Your task to perform on an android device: check android version Image 0: 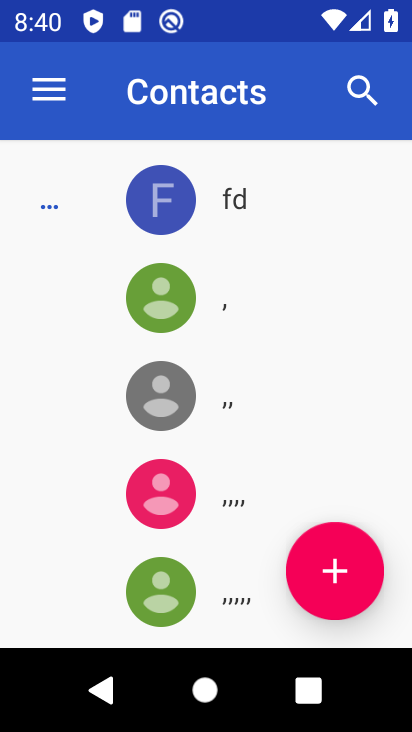
Step 0: press home button
Your task to perform on an android device: check android version Image 1: 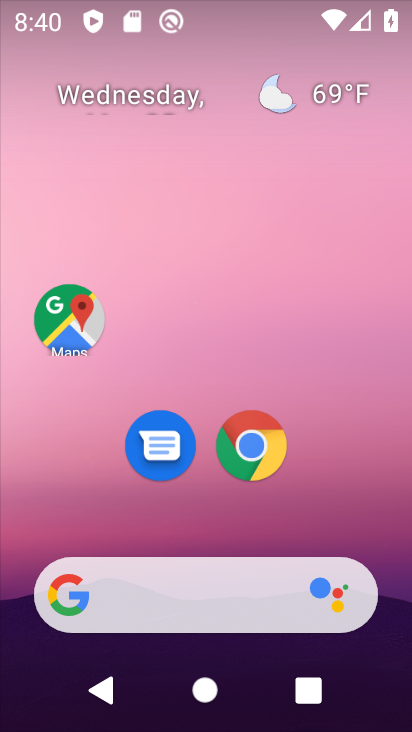
Step 1: drag from (287, 536) to (275, 82)
Your task to perform on an android device: check android version Image 2: 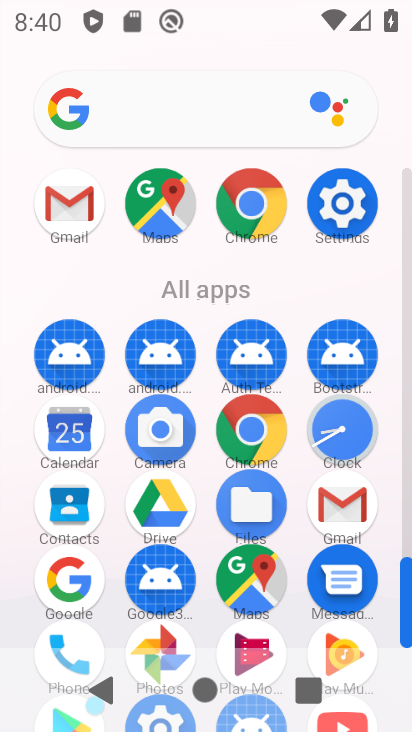
Step 2: click (341, 203)
Your task to perform on an android device: check android version Image 3: 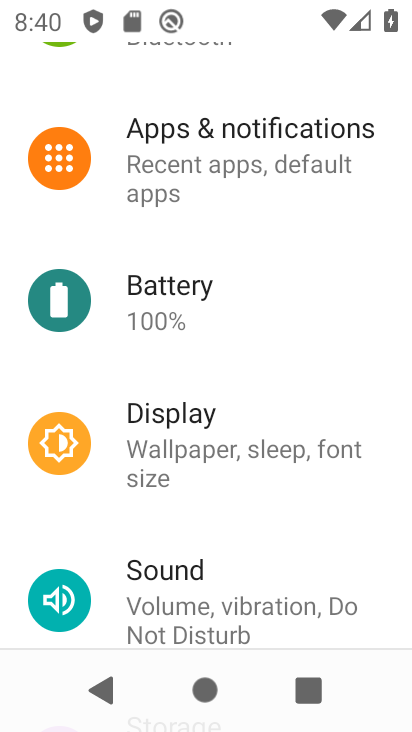
Step 3: drag from (336, 621) to (271, 141)
Your task to perform on an android device: check android version Image 4: 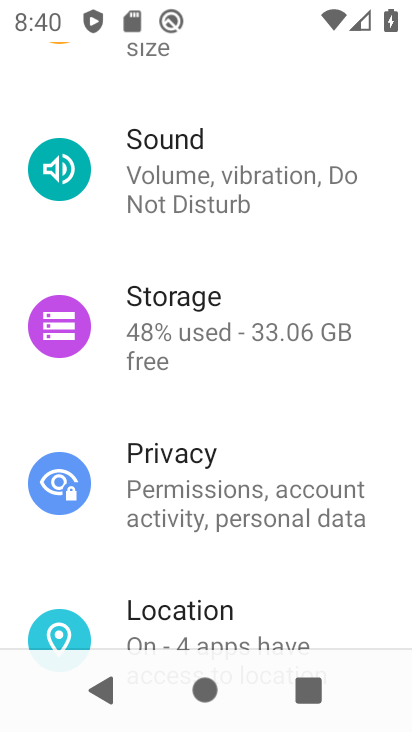
Step 4: drag from (302, 609) to (216, 110)
Your task to perform on an android device: check android version Image 5: 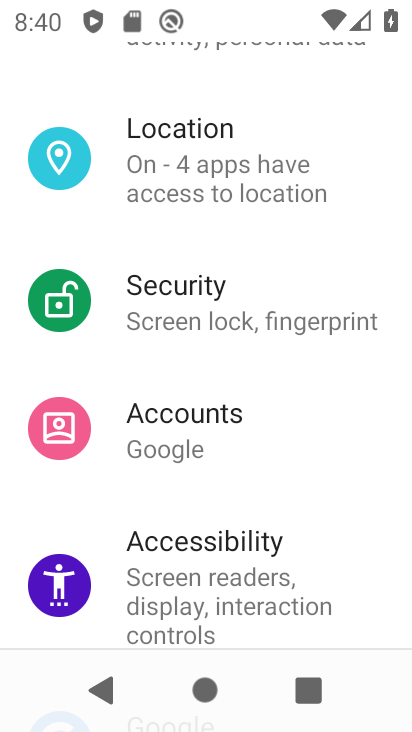
Step 5: drag from (354, 606) to (277, 64)
Your task to perform on an android device: check android version Image 6: 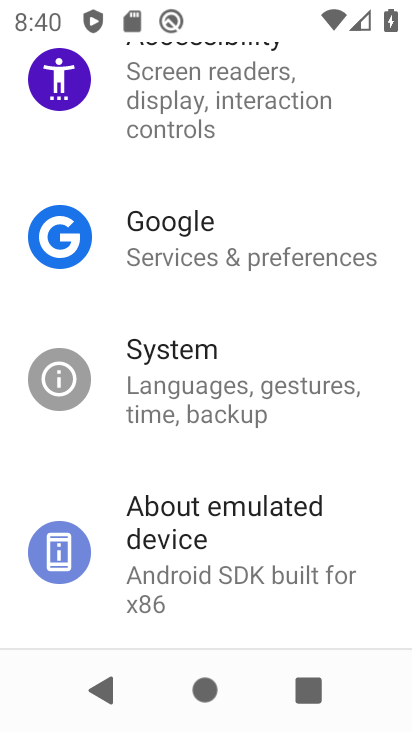
Step 6: click (183, 555)
Your task to perform on an android device: check android version Image 7: 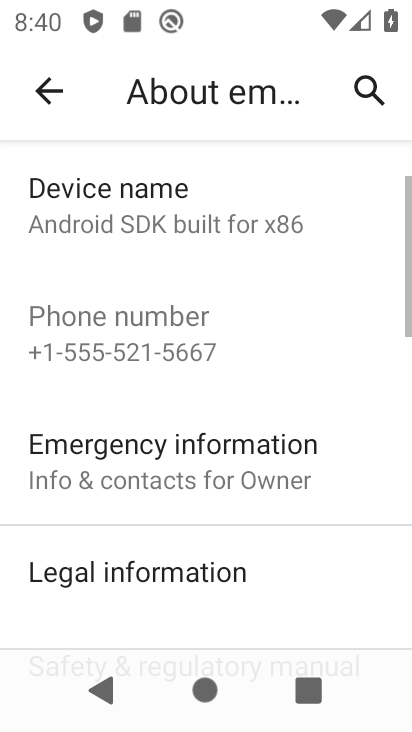
Step 7: drag from (324, 605) to (269, 156)
Your task to perform on an android device: check android version Image 8: 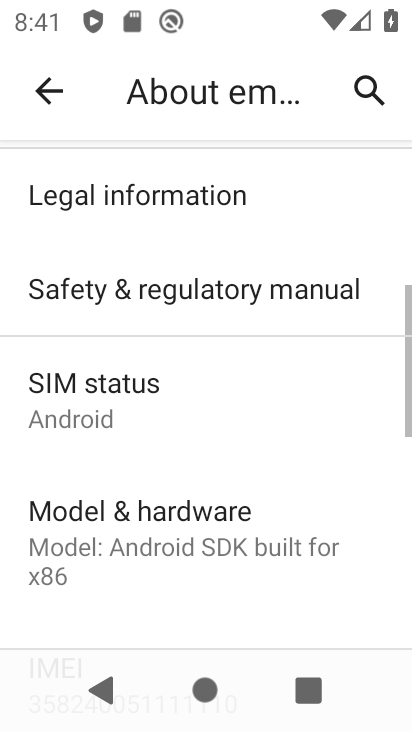
Step 8: drag from (311, 590) to (293, 184)
Your task to perform on an android device: check android version Image 9: 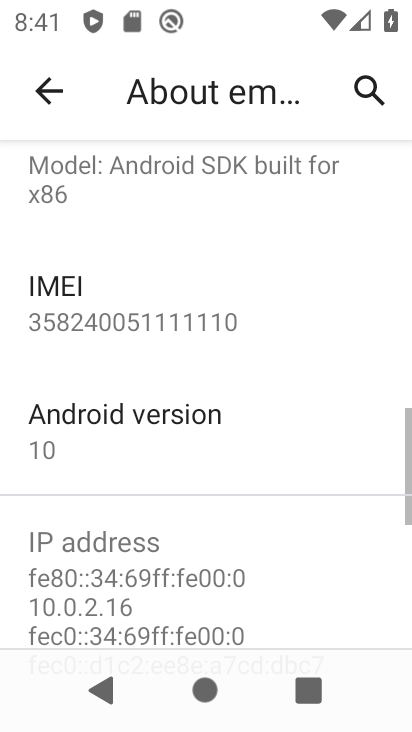
Step 9: click (106, 419)
Your task to perform on an android device: check android version Image 10: 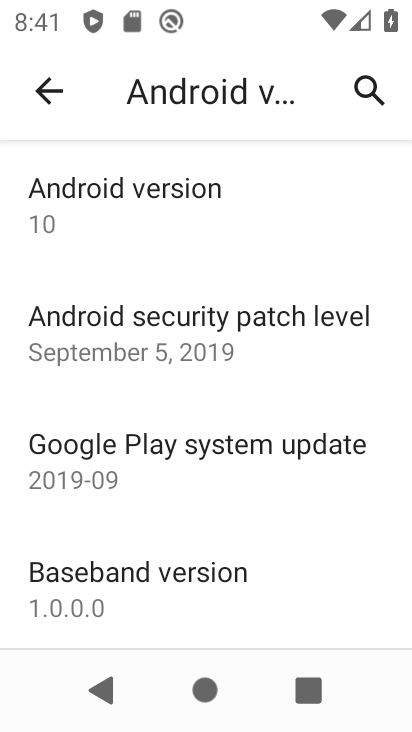
Step 10: click (155, 196)
Your task to perform on an android device: check android version Image 11: 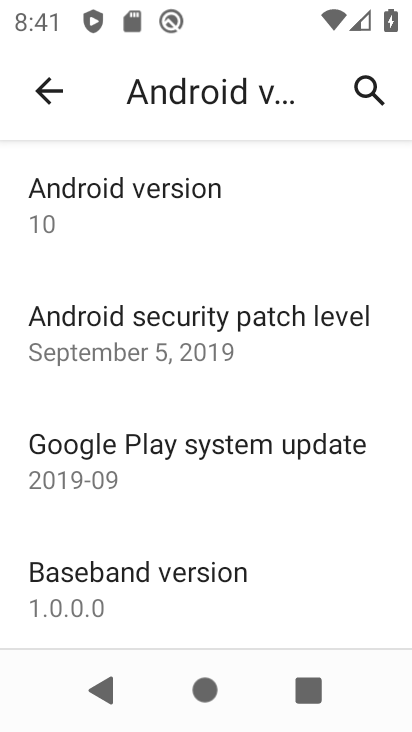
Step 11: task complete